Your task to perform on an android device: turn pop-ups on in chrome Image 0: 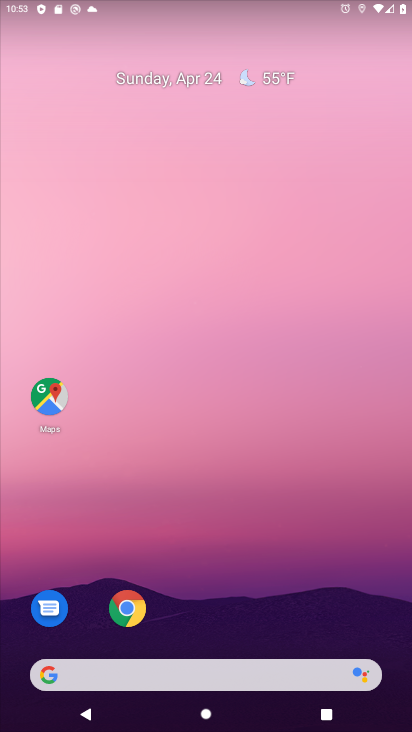
Step 0: click (129, 609)
Your task to perform on an android device: turn pop-ups on in chrome Image 1: 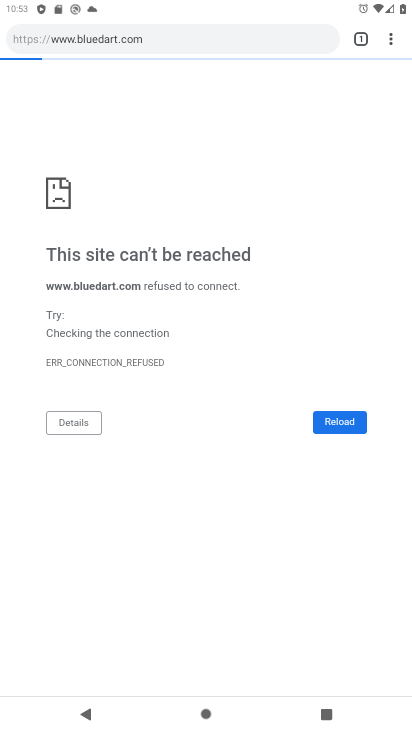
Step 1: click (390, 43)
Your task to perform on an android device: turn pop-ups on in chrome Image 2: 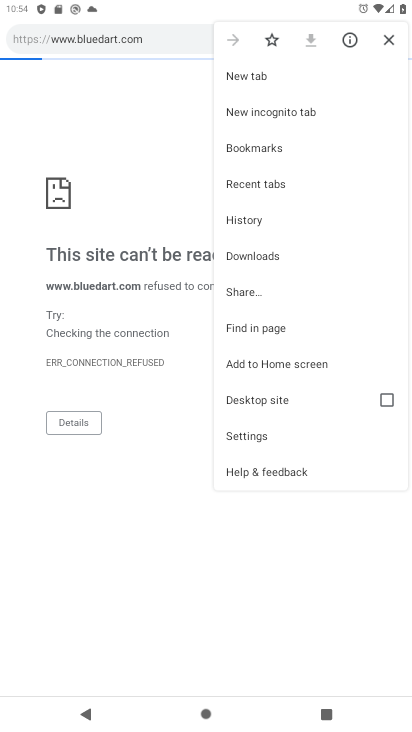
Step 2: click (243, 435)
Your task to perform on an android device: turn pop-ups on in chrome Image 3: 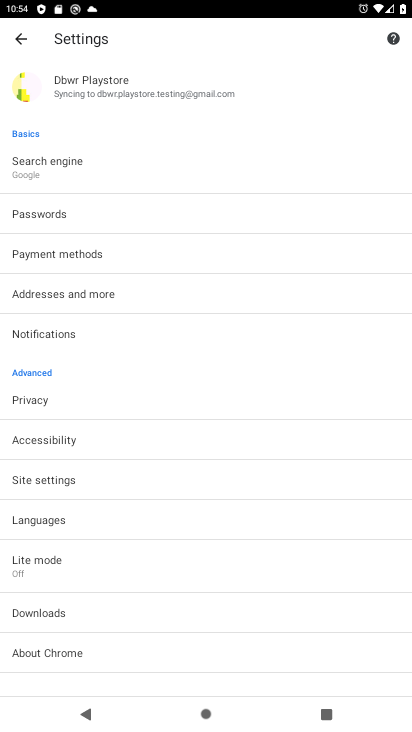
Step 3: click (42, 471)
Your task to perform on an android device: turn pop-ups on in chrome Image 4: 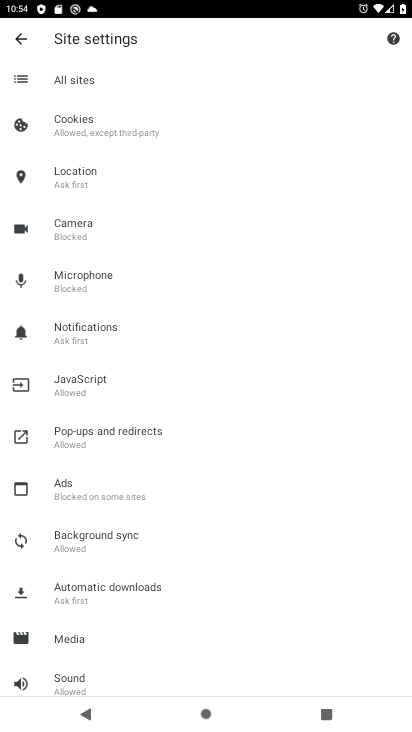
Step 4: click (62, 428)
Your task to perform on an android device: turn pop-ups on in chrome Image 5: 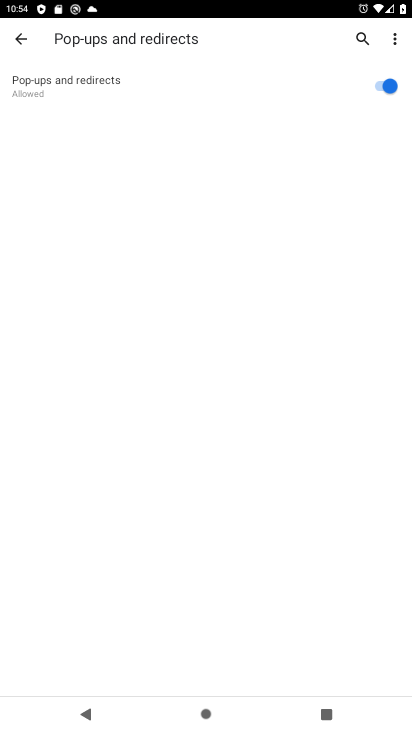
Step 5: task complete